Your task to perform on an android device: Open display settings Image 0: 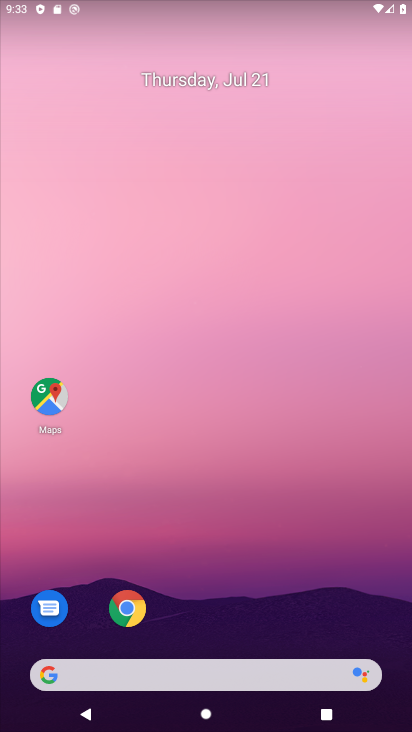
Step 0: drag from (210, 662) to (175, 58)
Your task to perform on an android device: Open display settings Image 1: 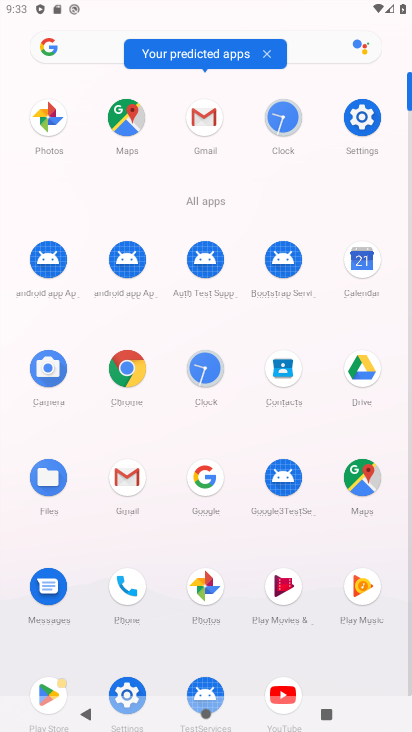
Step 1: click (357, 115)
Your task to perform on an android device: Open display settings Image 2: 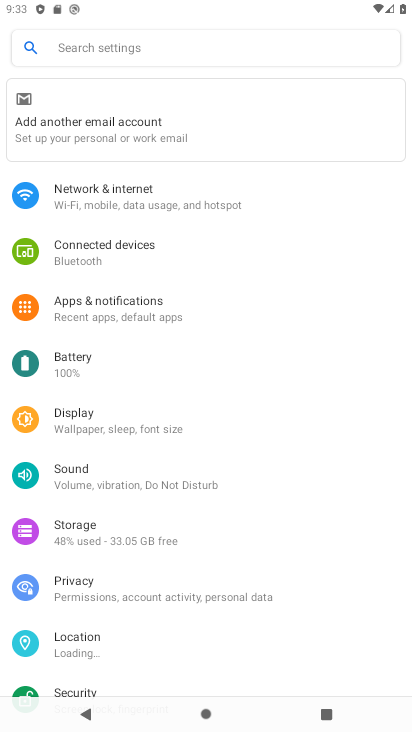
Step 2: click (106, 431)
Your task to perform on an android device: Open display settings Image 3: 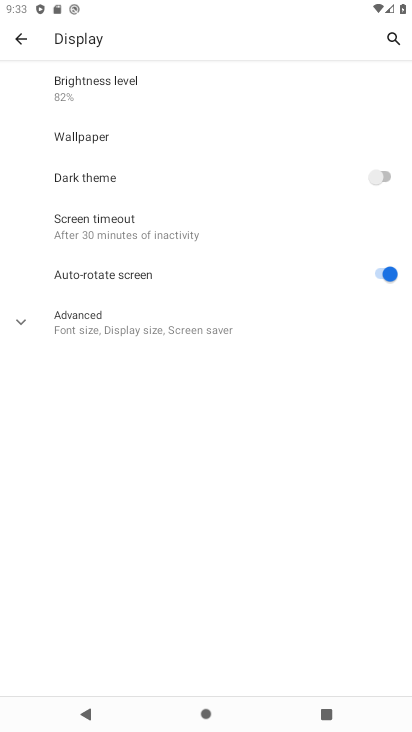
Step 3: click (110, 330)
Your task to perform on an android device: Open display settings Image 4: 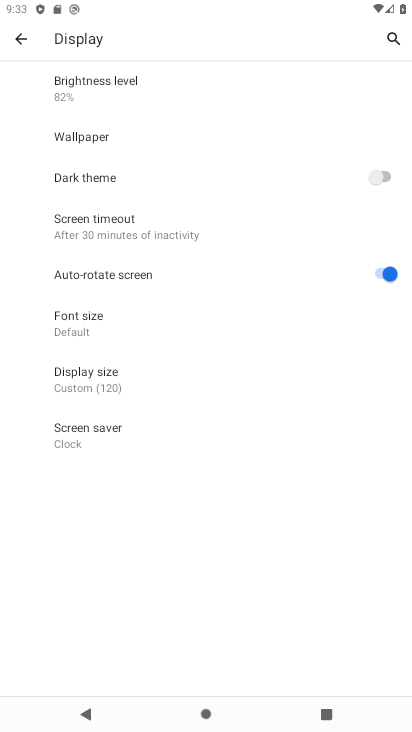
Step 4: task complete